Your task to perform on an android device: What's on my calendar tomorrow? Image 0: 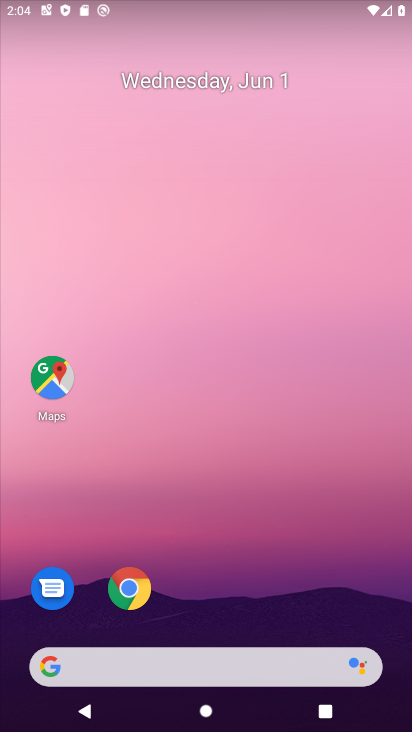
Step 0: drag from (219, 608) to (280, 112)
Your task to perform on an android device: What's on my calendar tomorrow? Image 1: 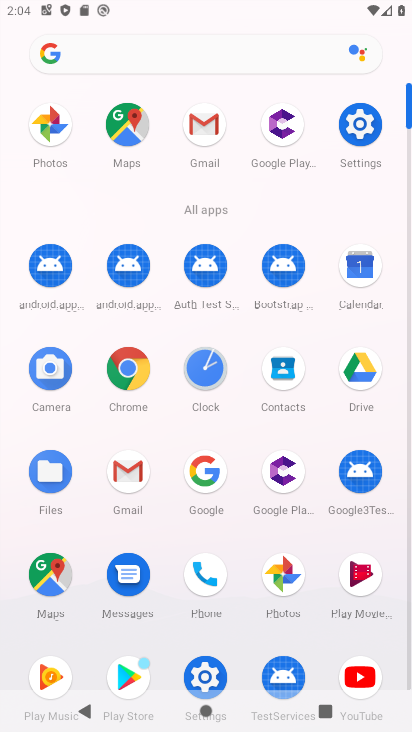
Step 1: click (351, 274)
Your task to perform on an android device: What's on my calendar tomorrow? Image 2: 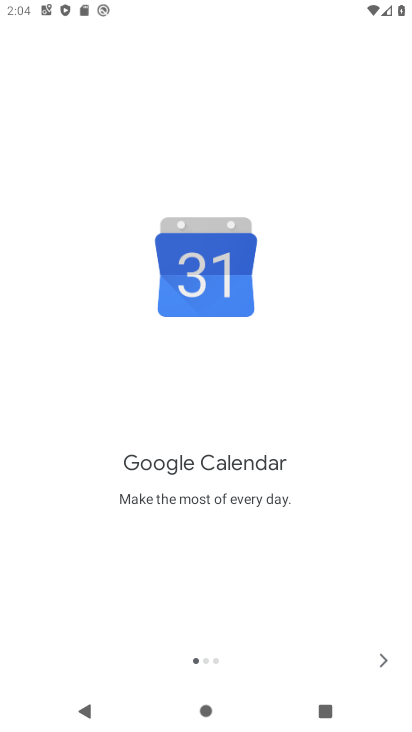
Step 2: click (386, 676)
Your task to perform on an android device: What's on my calendar tomorrow? Image 3: 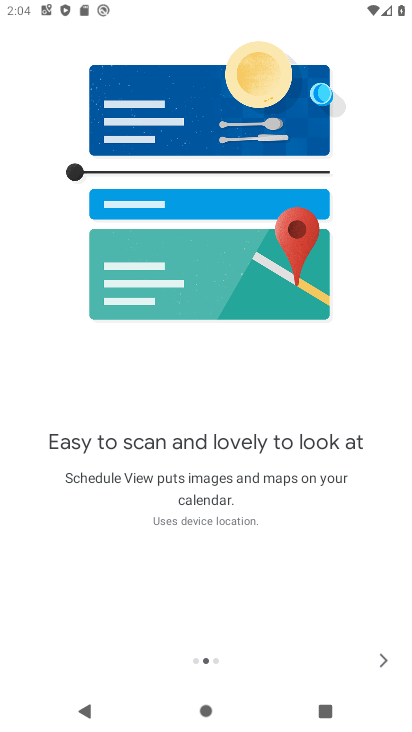
Step 3: click (383, 669)
Your task to perform on an android device: What's on my calendar tomorrow? Image 4: 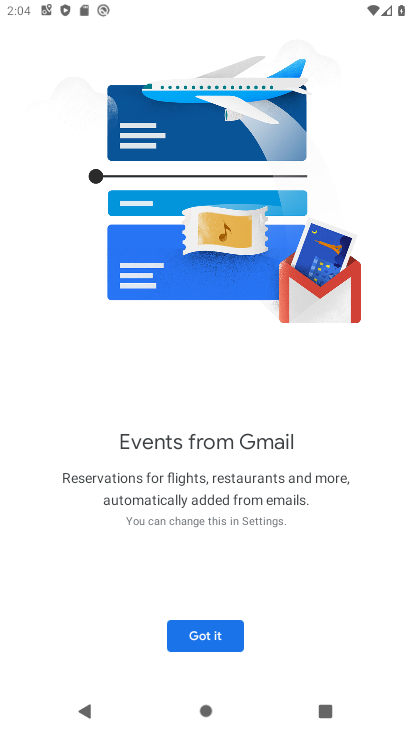
Step 4: click (198, 628)
Your task to perform on an android device: What's on my calendar tomorrow? Image 5: 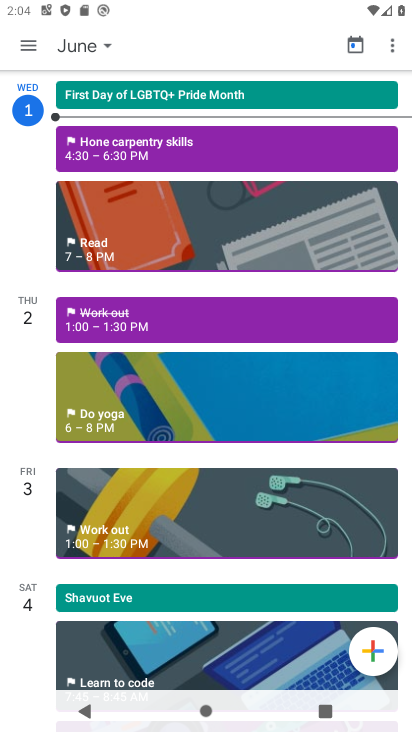
Step 5: click (104, 421)
Your task to perform on an android device: What's on my calendar tomorrow? Image 6: 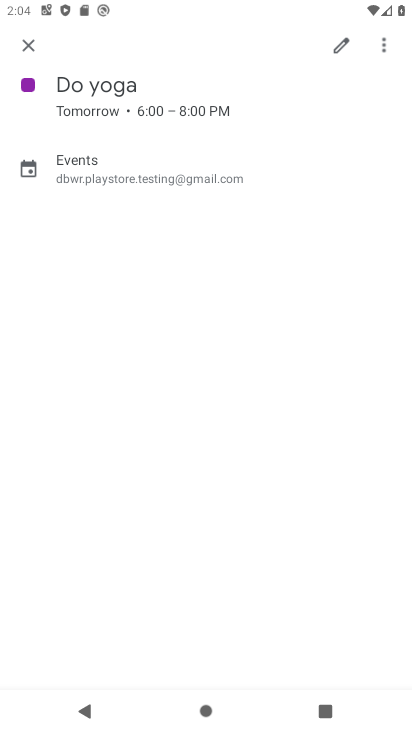
Step 6: task complete